Your task to perform on an android device: toggle show notifications on the lock screen Image 0: 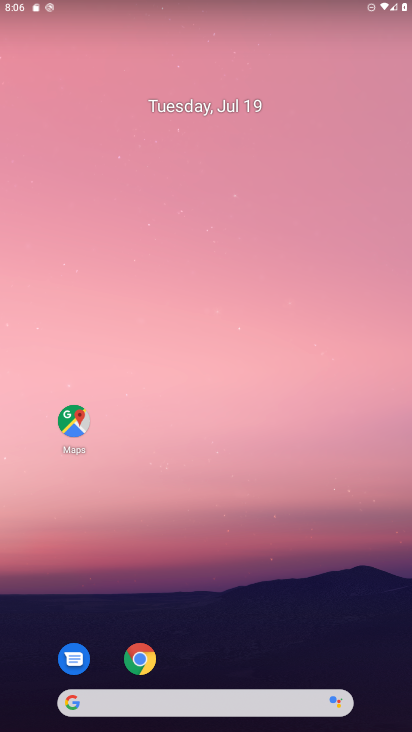
Step 0: drag from (201, 640) to (201, 120)
Your task to perform on an android device: toggle show notifications on the lock screen Image 1: 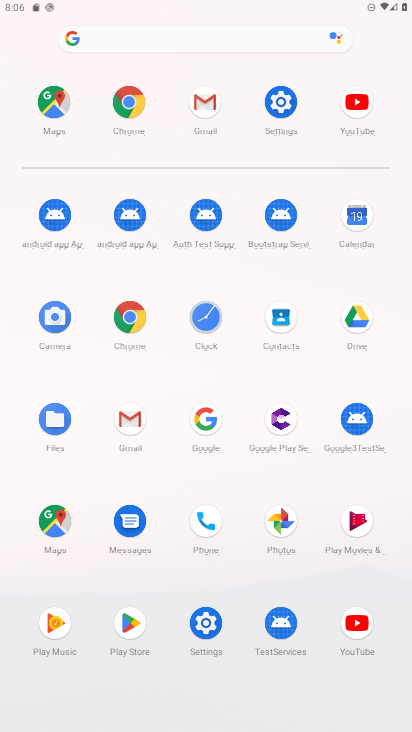
Step 1: click (285, 106)
Your task to perform on an android device: toggle show notifications on the lock screen Image 2: 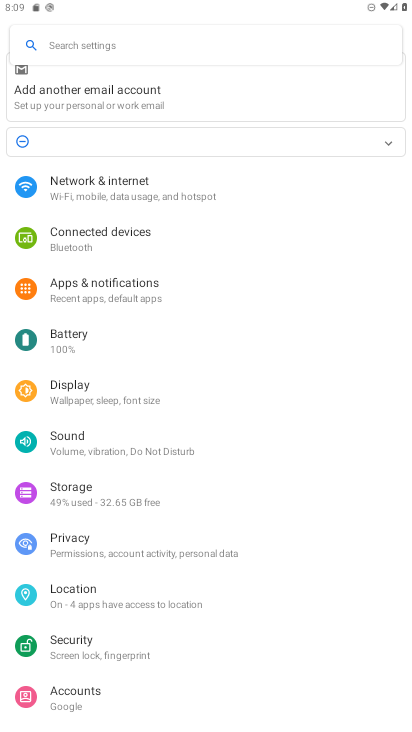
Step 2: click (111, 183)
Your task to perform on an android device: toggle show notifications on the lock screen Image 3: 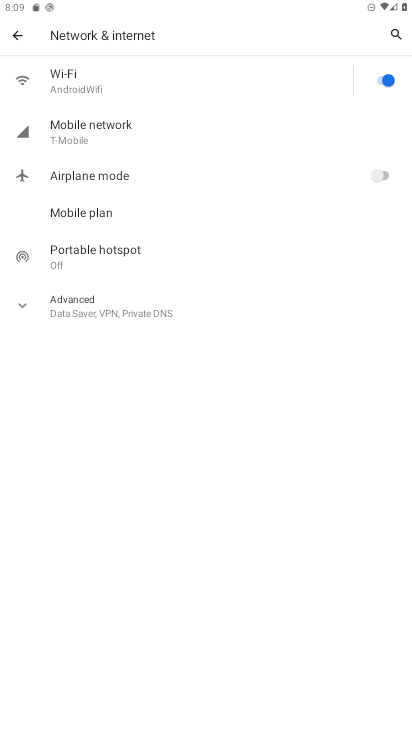
Step 3: click (19, 35)
Your task to perform on an android device: toggle show notifications on the lock screen Image 4: 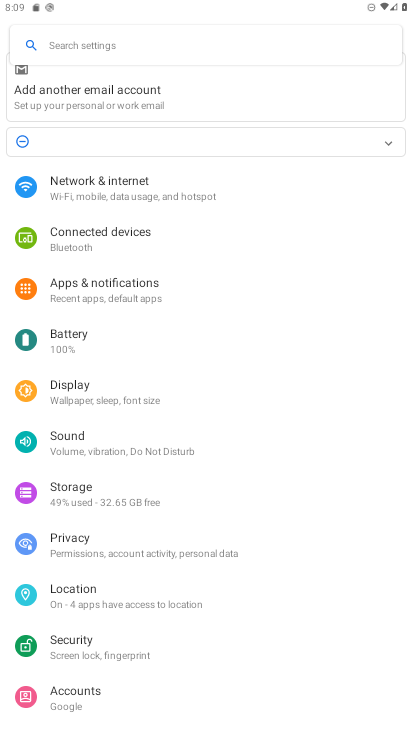
Step 4: click (122, 286)
Your task to perform on an android device: toggle show notifications on the lock screen Image 5: 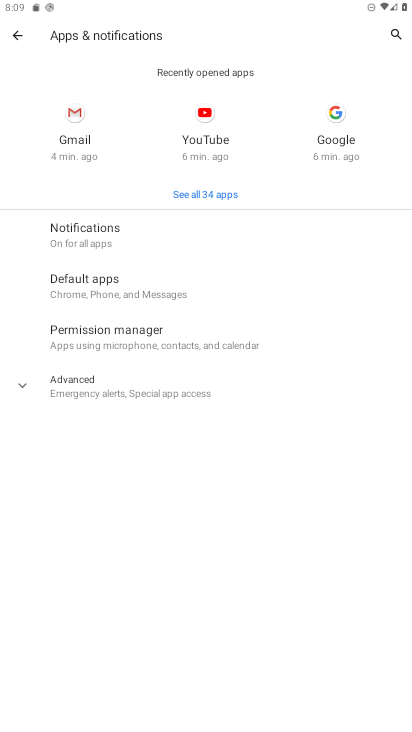
Step 5: click (137, 238)
Your task to perform on an android device: toggle show notifications on the lock screen Image 6: 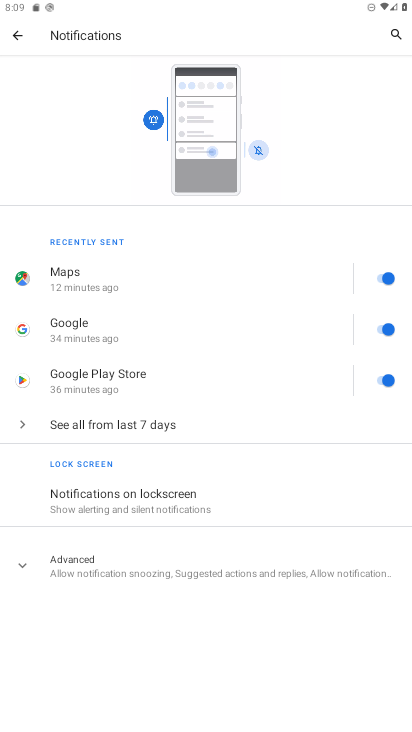
Step 6: click (188, 493)
Your task to perform on an android device: toggle show notifications on the lock screen Image 7: 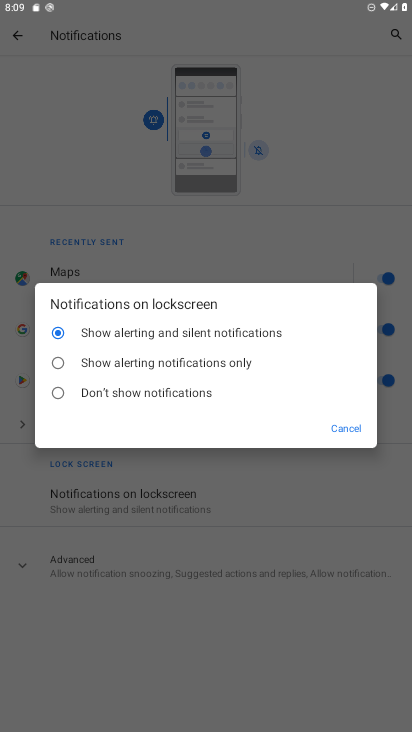
Step 7: click (90, 389)
Your task to perform on an android device: toggle show notifications on the lock screen Image 8: 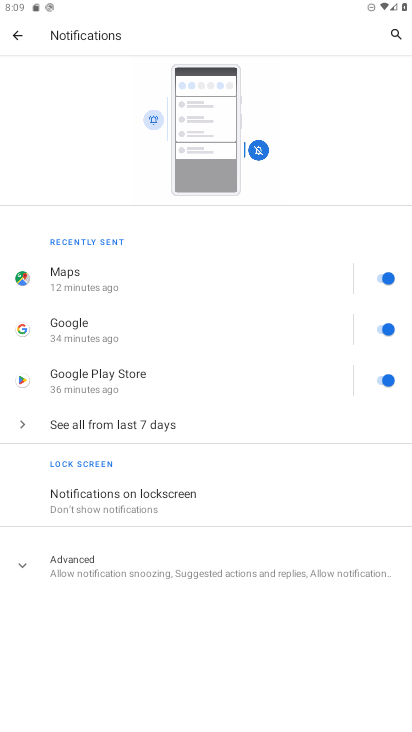
Step 8: task complete